Your task to perform on an android device: Open settings Image 0: 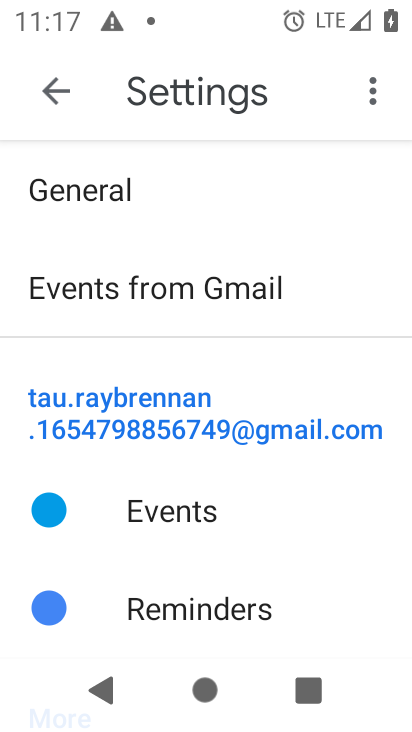
Step 0: press home button
Your task to perform on an android device: Open settings Image 1: 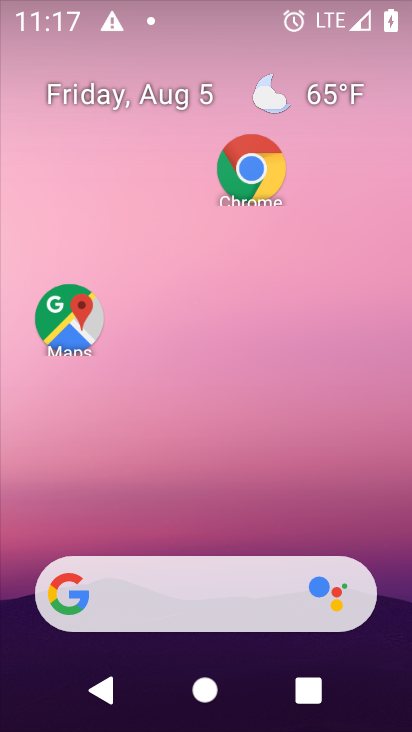
Step 1: drag from (184, 523) to (159, 183)
Your task to perform on an android device: Open settings Image 2: 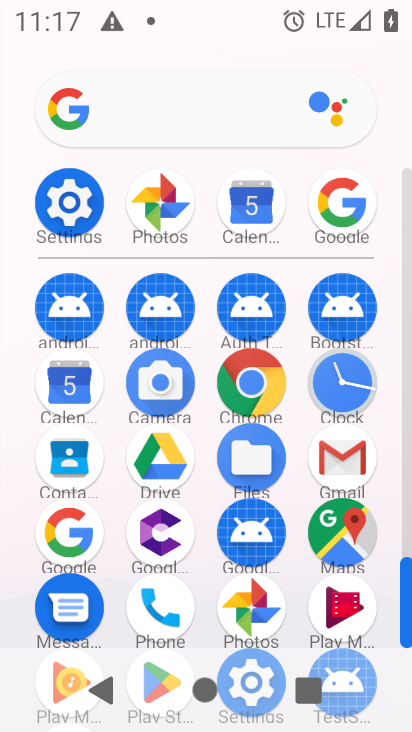
Step 2: click (59, 223)
Your task to perform on an android device: Open settings Image 3: 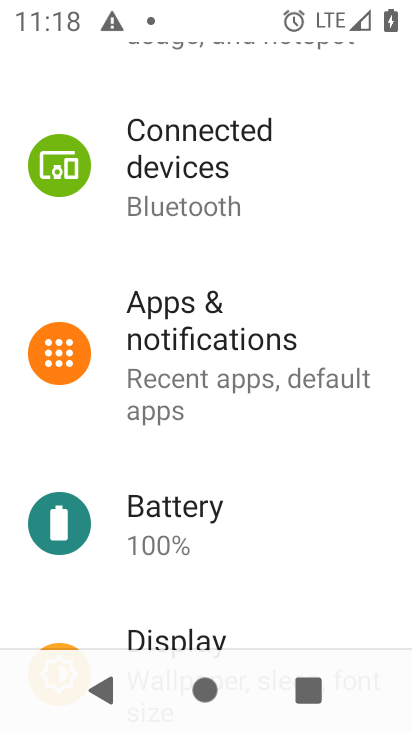
Step 3: task complete